Your task to perform on an android device: Play the last video I watched on Youtube Image 0: 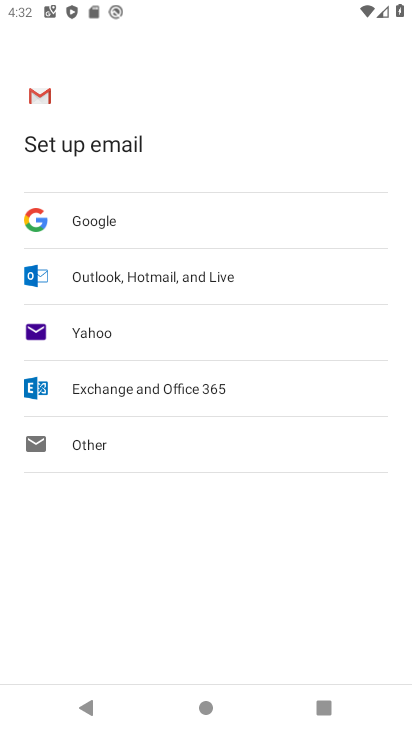
Step 0: press back button
Your task to perform on an android device: Play the last video I watched on Youtube Image 1: 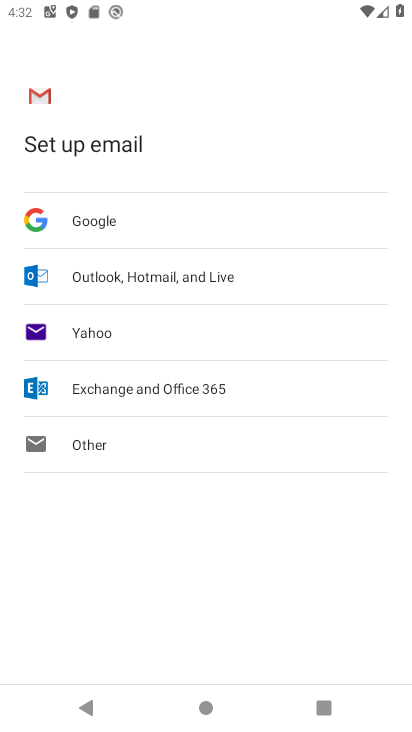
Step 1: press back button
Your task to perform on an android device: Play the last video I watched on Youtube Image 2: 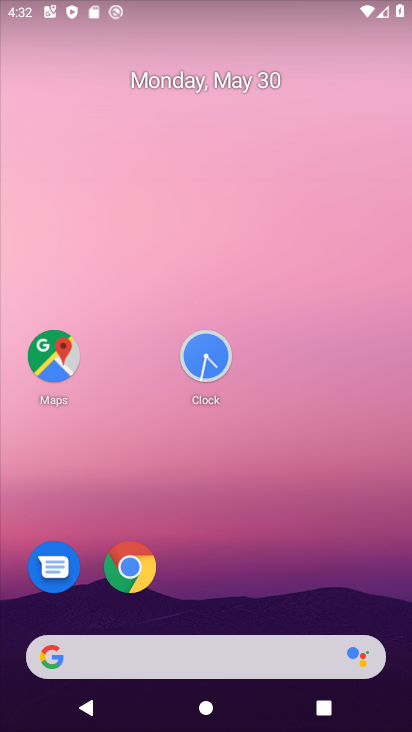
Step 2: drag from (269, 678) to (259, 105)
Your task to perform on an android device: Play the last video I watched on Youtube Image 3: 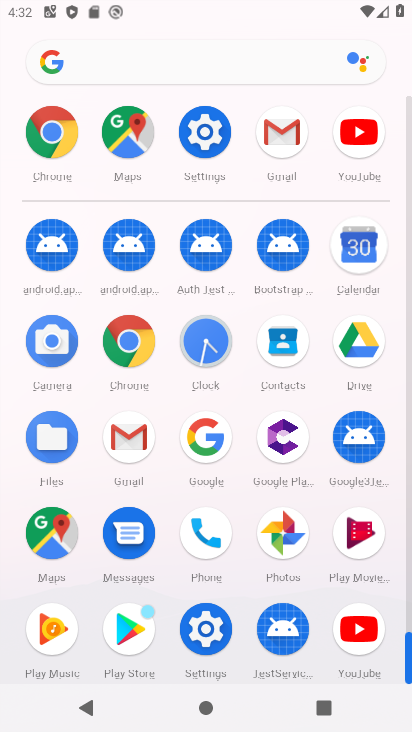
Step 3: click (359, 625)
Your task to perform on an android device: Play the last video I watched on Youtube Image 4: 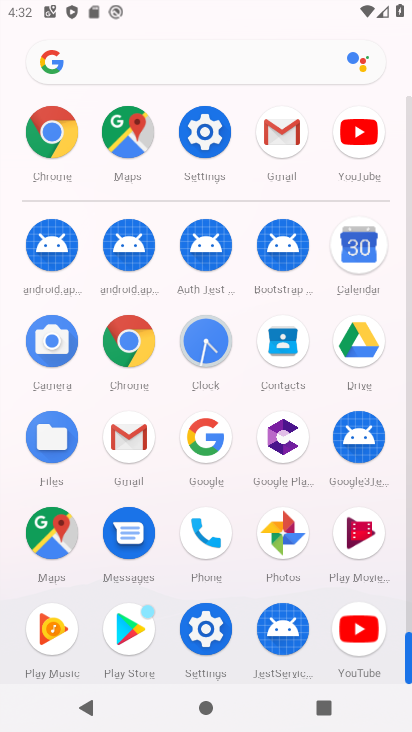
Step 4: click (359, 625)
Your task to perform on an android device: Play the last video I watched on Youtube Image 5: 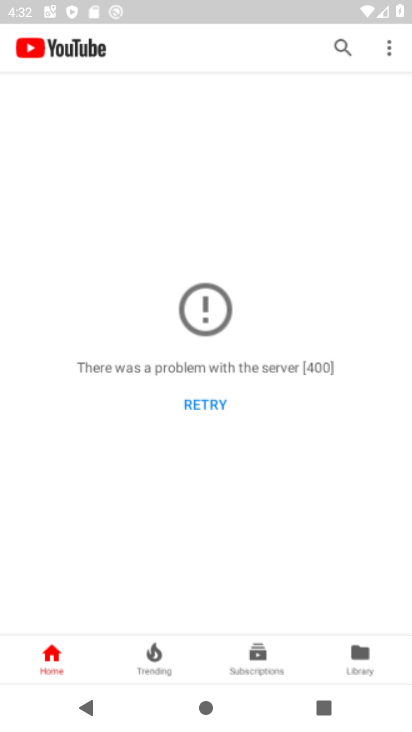
Step 5: click (356, 638)
Your task to perform on an android device: Play the last video I watched on Youtube Image 6: 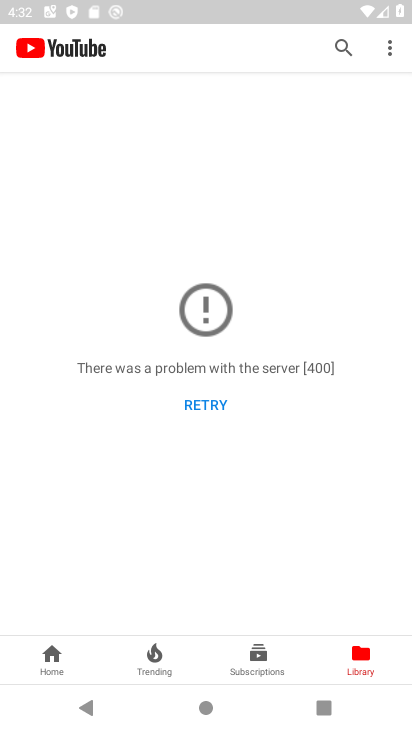
Step 6: click (200, 328)
Your task to perform on an android device: Play the last video I watched on Youtube Image 7: 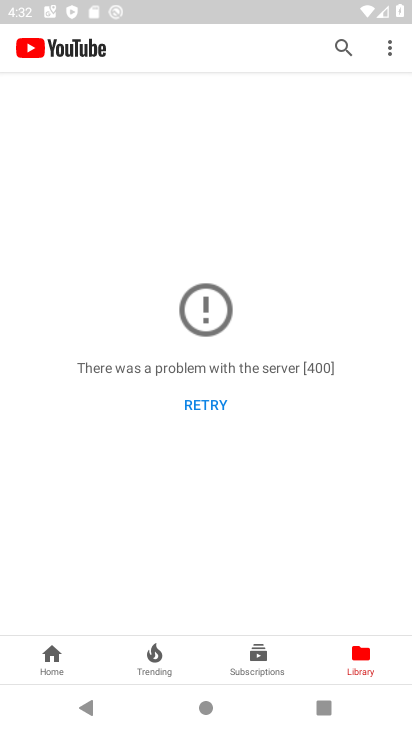
Step 7: click (200, 328)
Your task to perform on an android device: Play the last video I watched on Youtube Image 8: 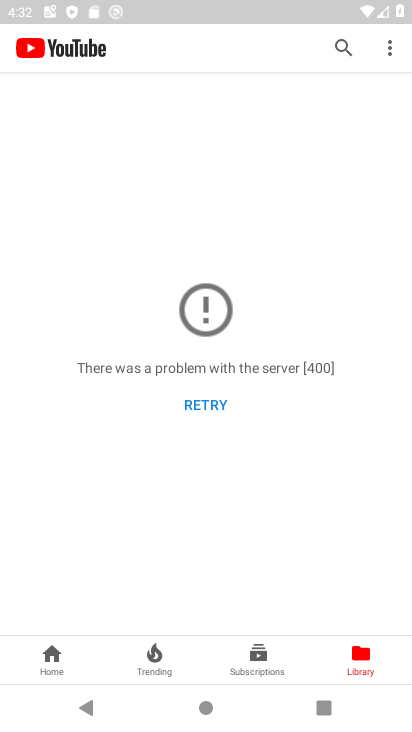
Step 8: click (200, 328)
Your task to perform on an android device: Play the last video I watched on Youtube Image 9: 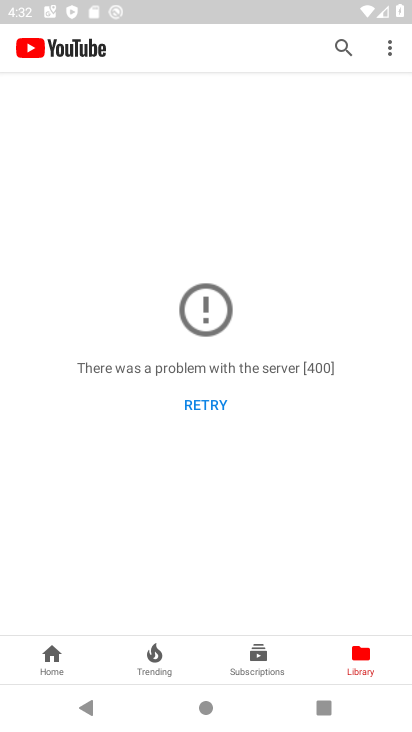
Step 9: click (201, 328)
Your task to perform on an android device: Play the last video I watched on Youtube Image 10: 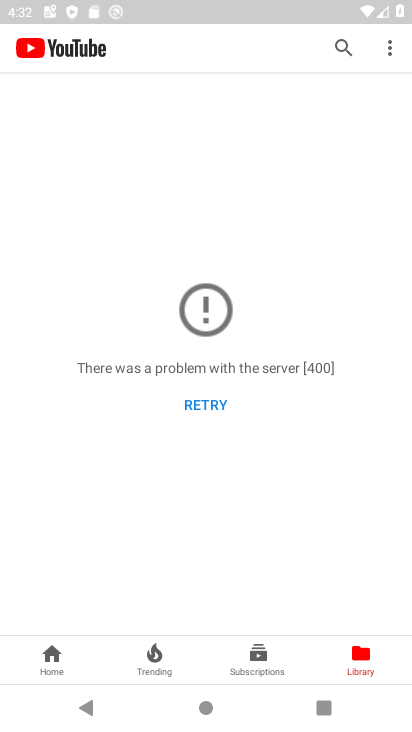
Step 10: click (201, 328)
Your task to perform on an android device: Play the last video I watched on Youtube Image 11: 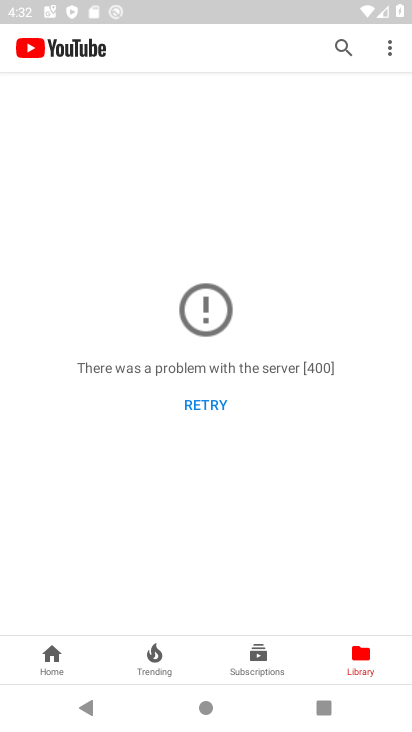
Step 11: click (201, 328)
Your task to perform on an android device: Play the last video I watched on Youtube Image 12: 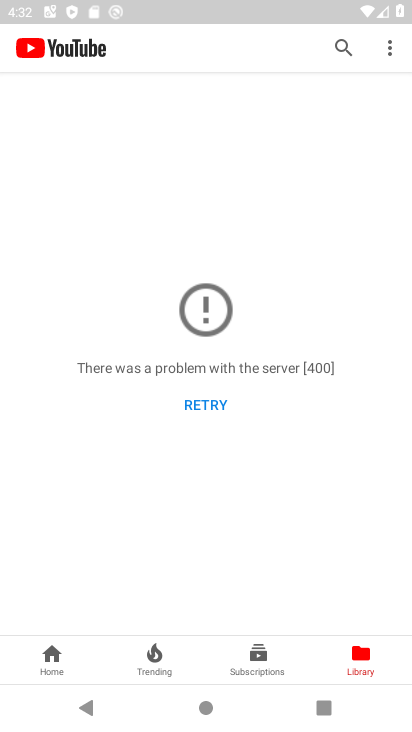
Step 12: task complete